Your task to perform on an android device: Go to battery settings Image 0: 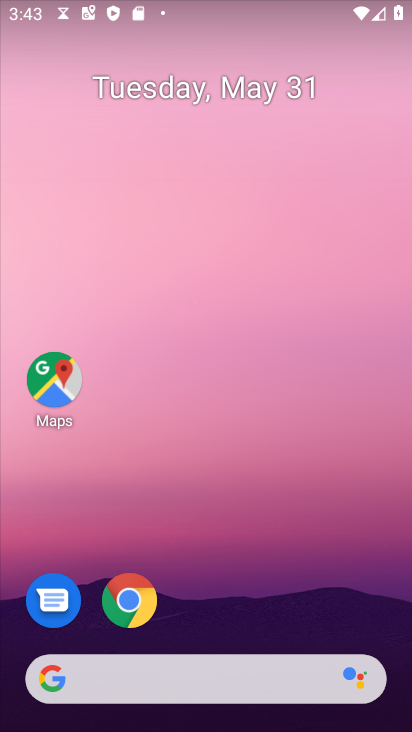
Step 0: press home button
Your task to perform on an android device: Go to battery settings Image 1: 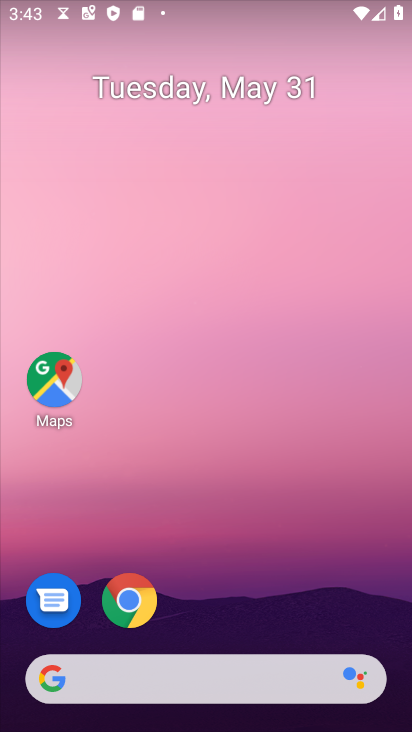
Step 1: drag from (222, 634) to (252, 114)
Your task to perform on an android device: Go to battery settings Image 2: 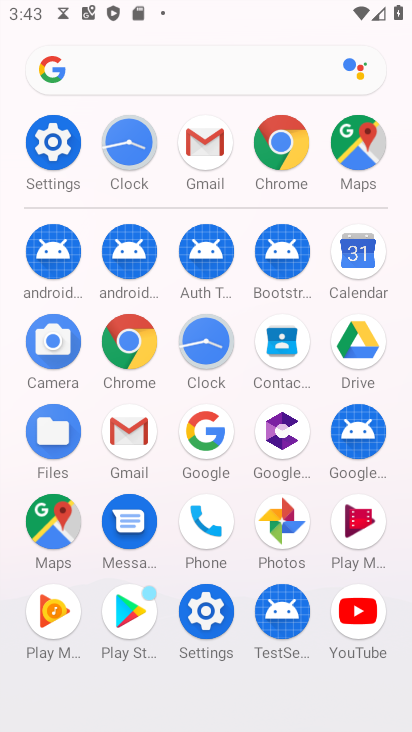
Step 2: click (209, 606)
Your task to perform on an android device: Go to battery settings Image 3: 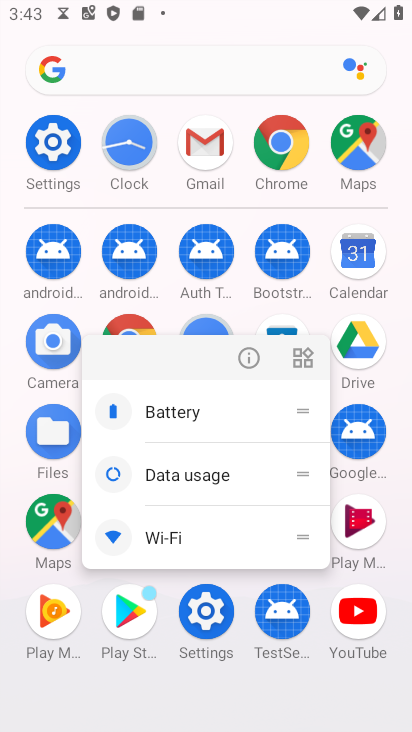
Step 3: click (209, 613)
Your task to perform on an android device: Go to battery settings Image 4: 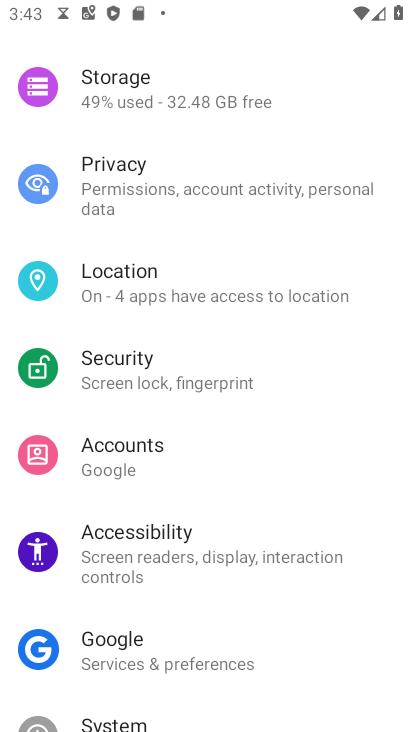
Step 4: drag from (170, 197) to (182, 570)
Your task to perform on an android device: Go to battery settings Image 5: 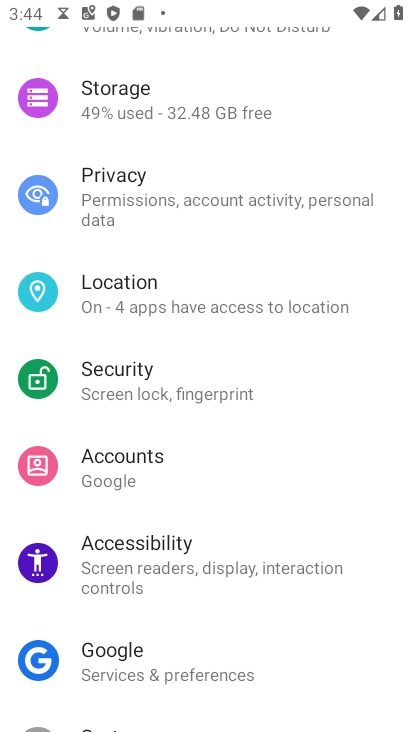
Step 5: drag from (176, 341) to (202, 690)
Your task to perform on an android device: Go to battery settings Image 6: 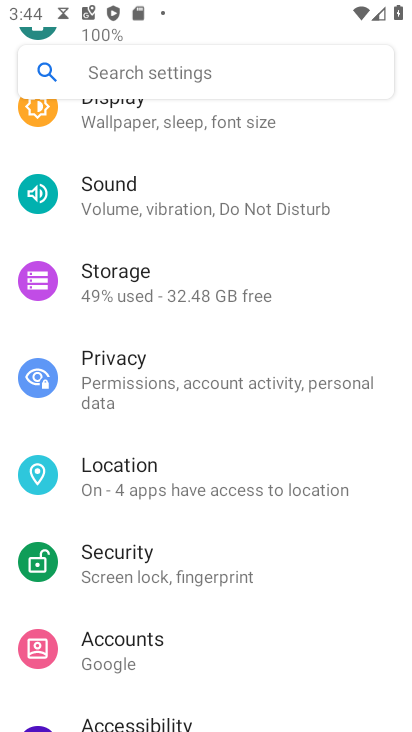
Step 6: drag from (165, 344) to (188, 728)
Your task to perform on an android device: Go to battery settings Image 7: 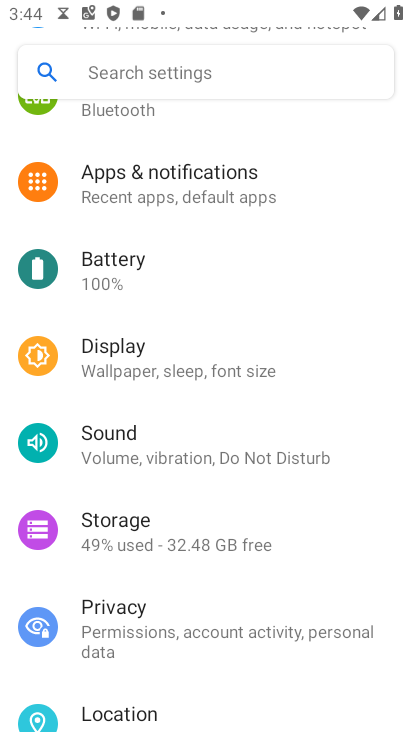
Step 7: click (127, 273)
Your task to perform on an android device: Go to battery settings Image 8: 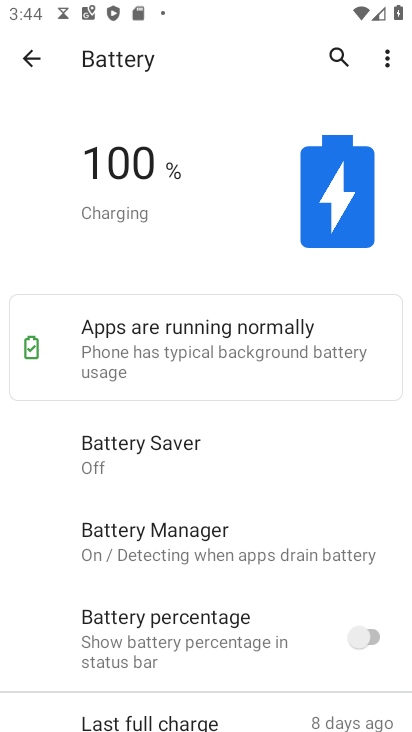
Step 8: task complete